Your task to perform on an android device: Search for vegetarian restaurants on Maps Image 0: 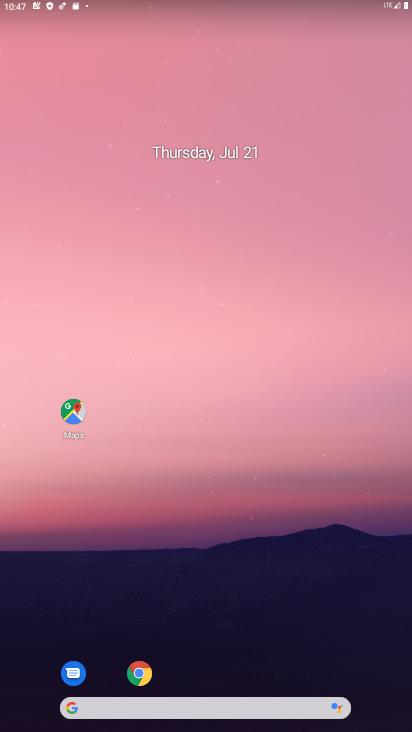
Step 0: click (84, 424)
Your task to perform on an android device: Search for vegetarian restaurants on Maps Image 1: 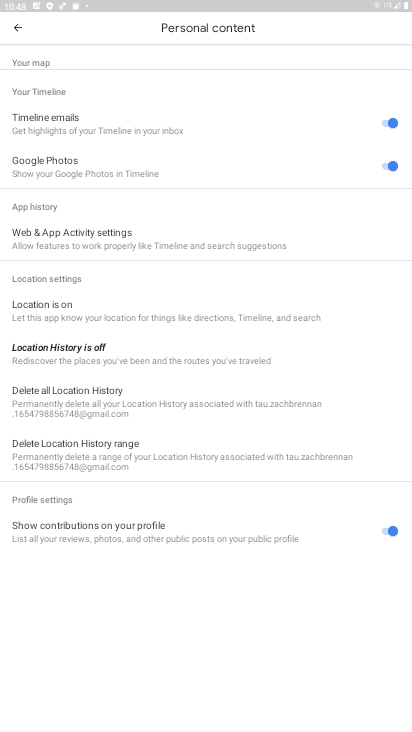
Step 1: click (19, 28)
Your task to perform on an android device: Search for vegetarian restaurants on Maps Image 2: 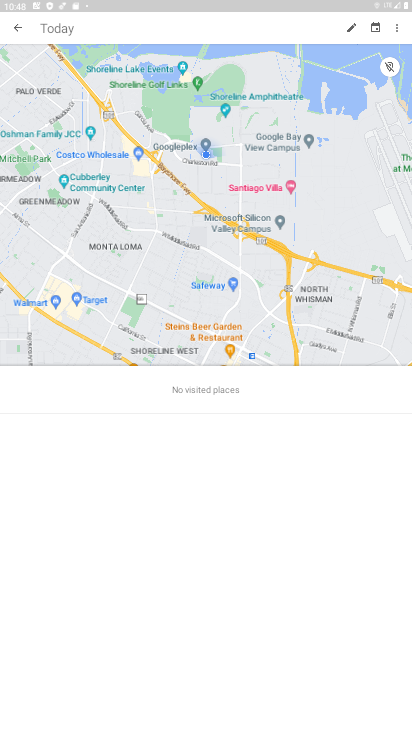
Step 2: click (24, 29)
Your task to perform on an android device: Search for vegetarian restaurants on Maps Image 3: 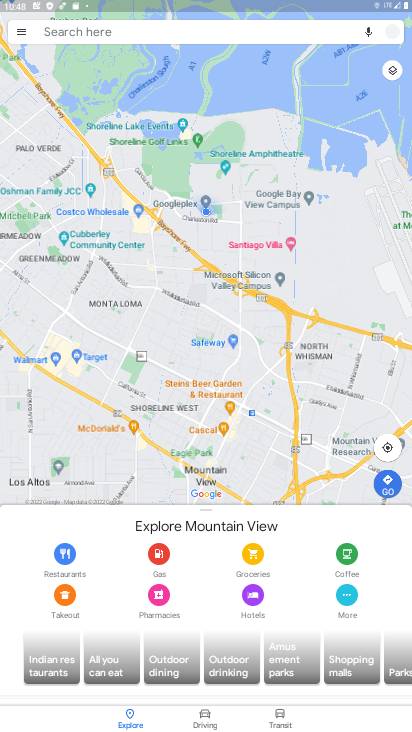
Step 3: click (150, 42)
Your task to perform on an android device: Search for vegetarian restaurants on Maps Image 4: 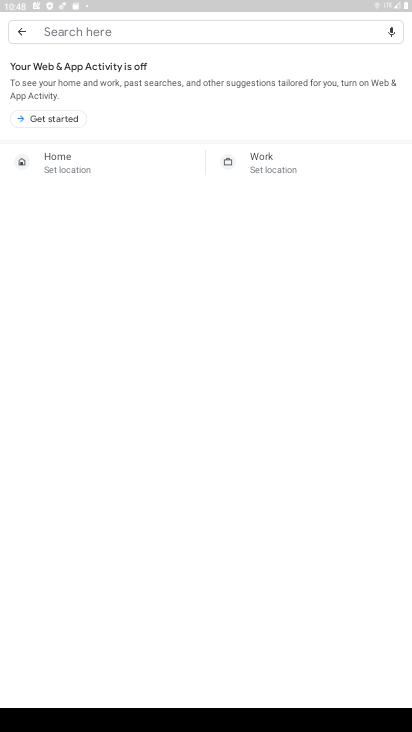
Step 4: type "vegetarian restaurants"
Your task to perform on an android device: Search for vegetarian restaurants on Maps Image 5: 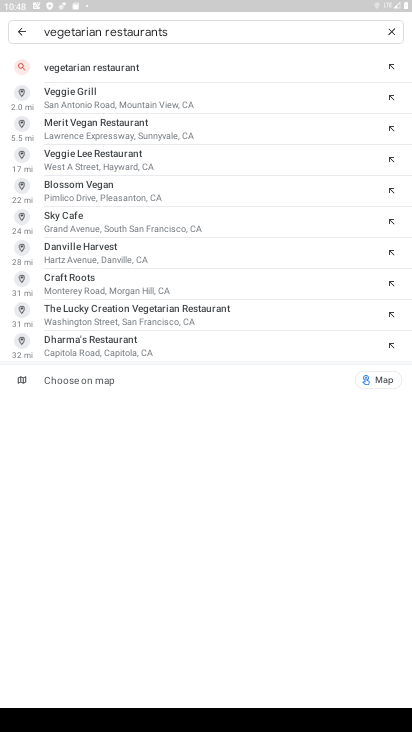
Step 5: click (160, 80)
Your task to perform on an android device: Search for vegetarian restaurants on Maps Image 6: 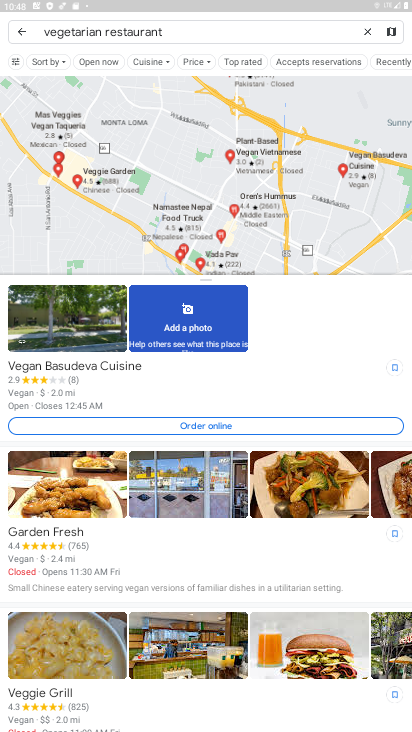
Step 6: task complete